Your task to perform on an android device: Open the Play Movies app and select the watchlist tab. Image 0: 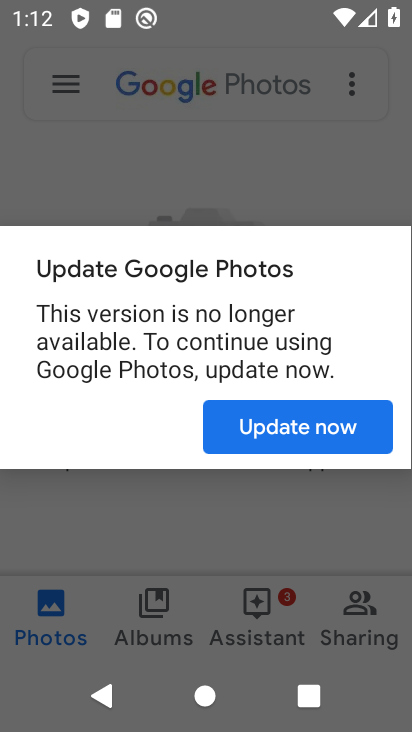
Step 0: press back button
Your task to perform on an android device: Open the Play Movies app and select the watchlist tab. Image 1: 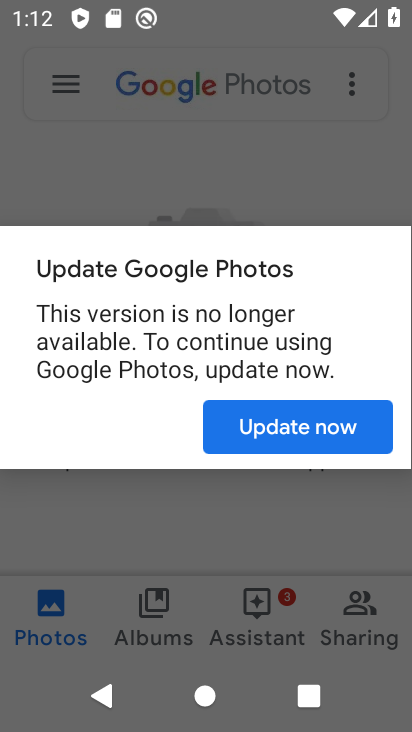
Step 1: press home button
Your task to perform on an android device: Open the Play Movies app and select the watchlist tab. Image 2: 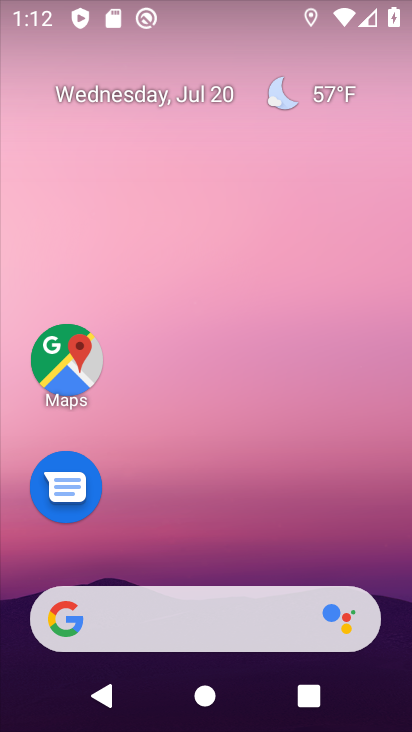
Step 2: drag from (217, 582) to (288, 52)
Your task to perform on an android device: Open the Play Movies app and select the watchlist tab. Image 3: 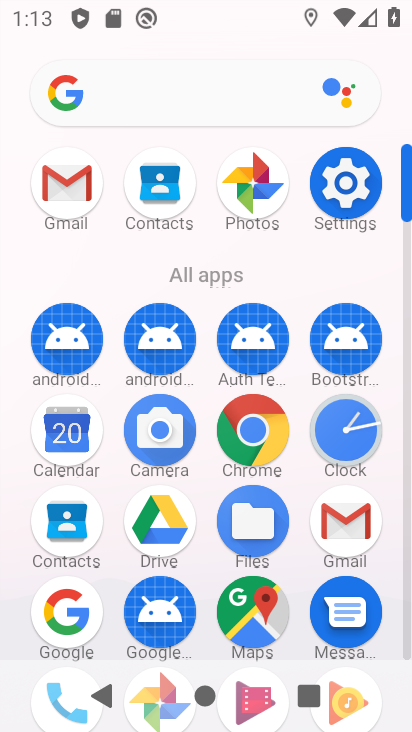
Step 3: drag from (156, 592) to (261, 67)
Your task to perform on an android device: Open the Play Movies app and select the watchlist tab. Image 4: 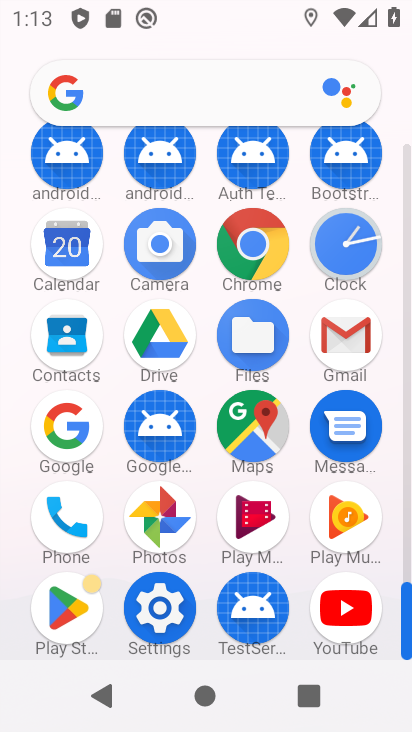
Step 4: click (243, 519)
Your task to perform on an android device: Open the Play Movies app and select the watchlist tab. Image 5: 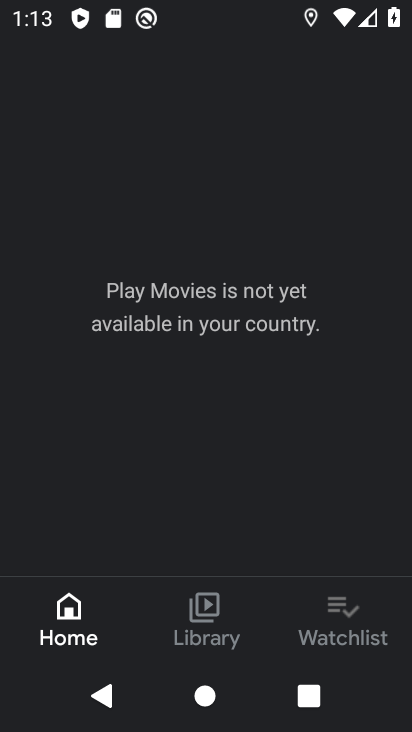
Step 5: click (344, 611)
Your task to perform on an android device: Open the Play Movies app and select the watchlist tab. Image 6: 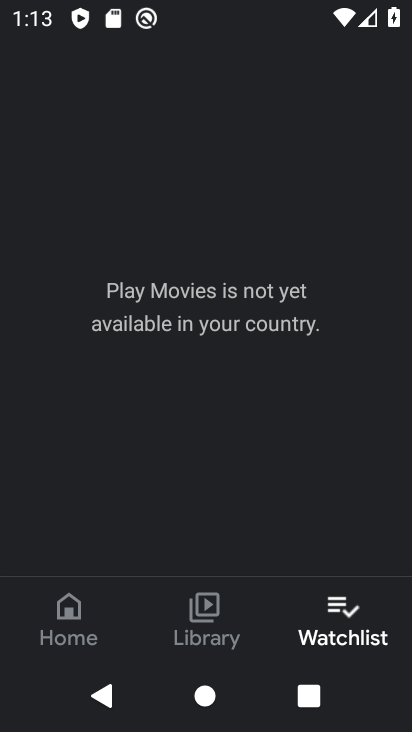
Step 6: click (338, 607)
Your task to perform on an android device: Open the Play Movies app and select the watchlist tab. Image 7: 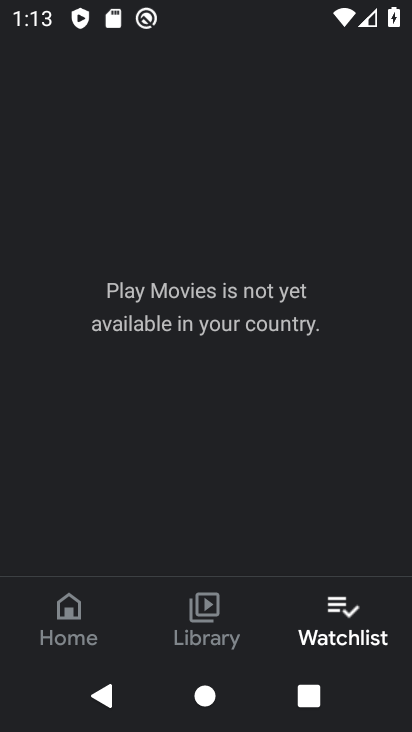
Step 7: task complete